Your task to perform on an android device: What's the weather going to be this weekend? Image 0: 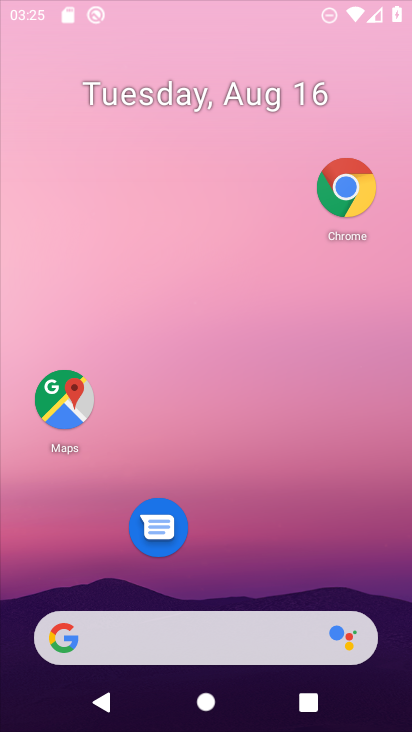
Step 0: press home button
Your task to perform on an android device: What's the weather going to be this weekend? Image 1: 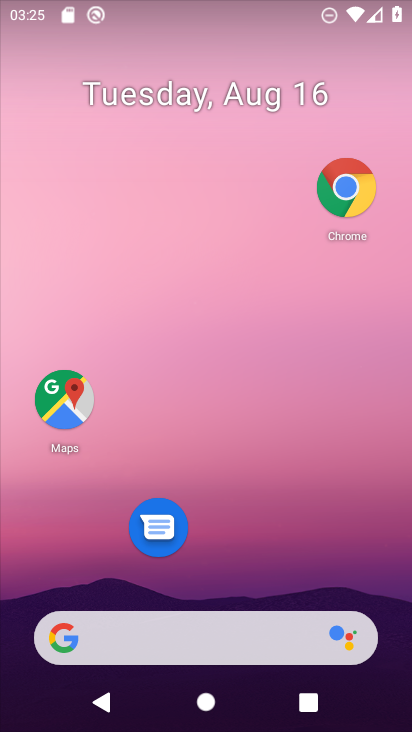
Step 1: drag from (217, 573) to (211, 8)
Your task to perform on an android device: What's the weather going to be this weekend? Image 2: 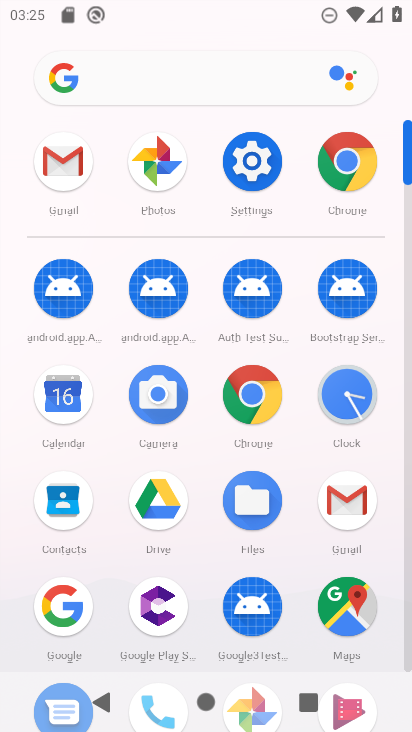
Step 2: click (144, 83)
Your task to perform on an android device: What's the weather going to be this weekend? Image 3: 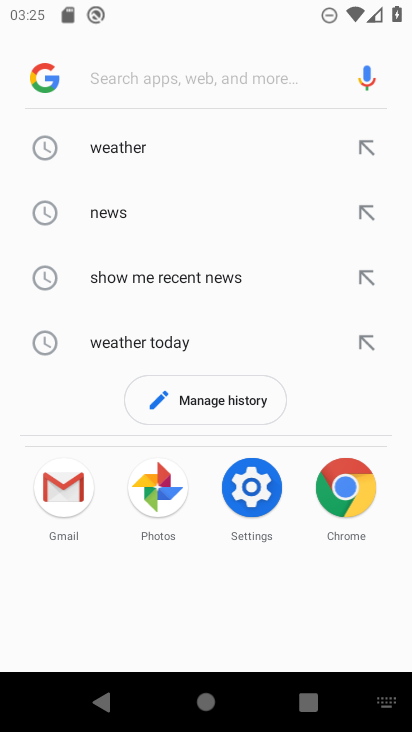
Step 3: click (129, 153)
Your task to perform on an android device: What's the weather going to be this weekend? Image 4: 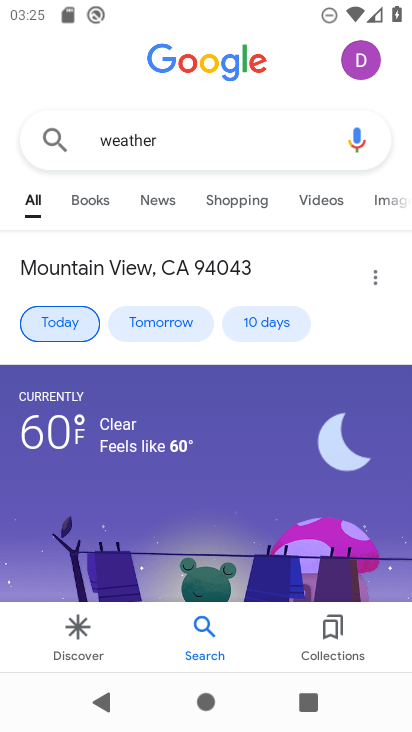
Step 4: click (262, 325)
Your task to perform on an android device: What's the weather going to be this weekend? Image 5: 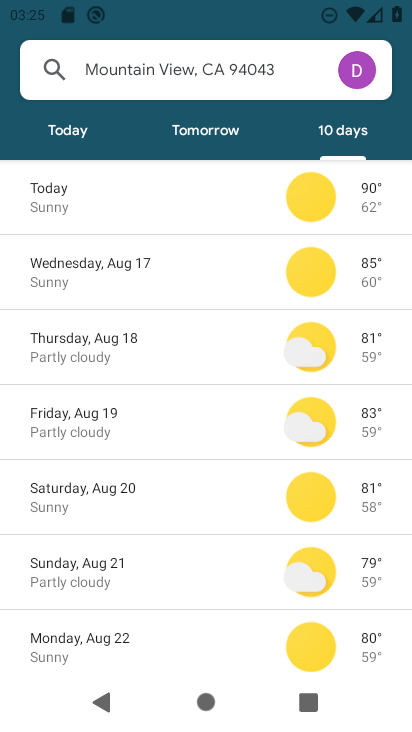
Step 5: click (78, 496)
Your task to perform on an android device: What's the weather going to be this weekend? Image 6: 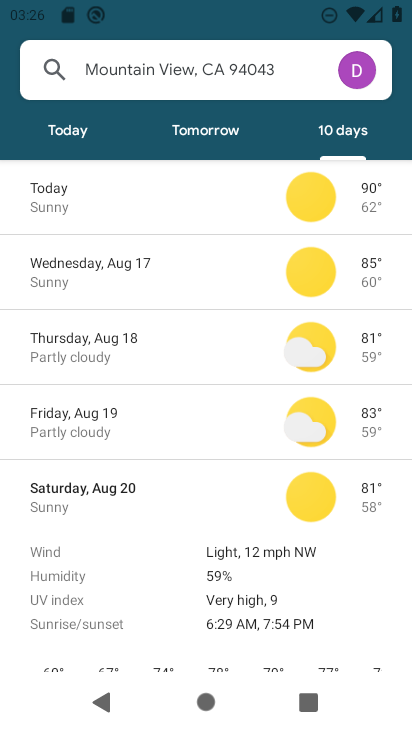
Step 6: task complete